Your task to perform on an android device: see tabs open on other devices in the chrome app Image 0: 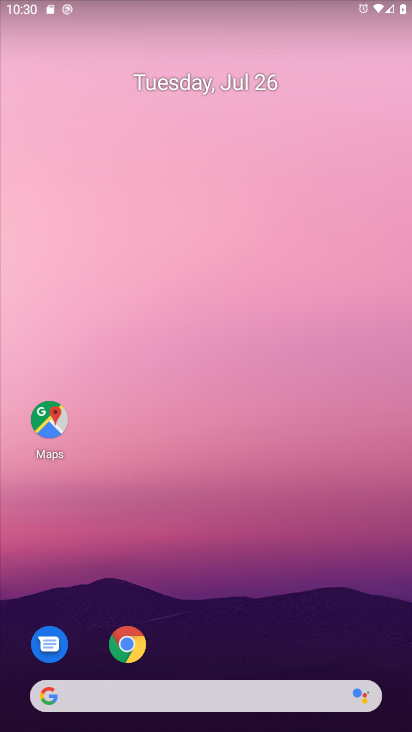
Step 0: click (121, 646)
Your task to perform on an android device: see tabs open on other devices in the chrome app Image 1: 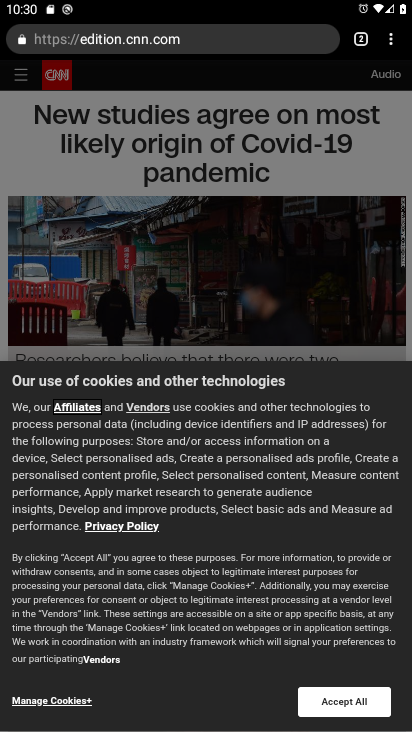
Step 1: click (387, 47)
Your task to perform on an android device: see tabs open on other devices in the chrome app Image 2: 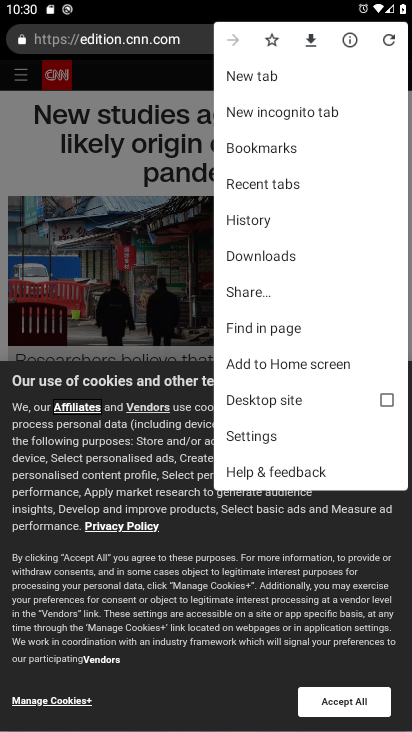
Step 2: click (278, 180)
Your task to perform on an android device: see tabs open on other devices in the chrome app Image 3: 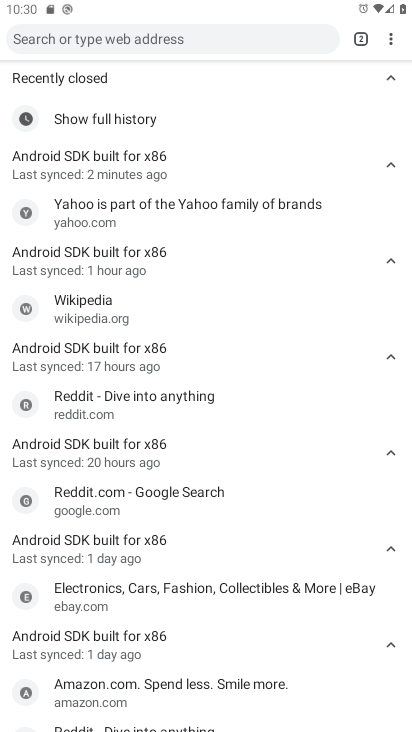
Step 3: task complete